Your task to perform on an android device: Go to Maps Image 0: 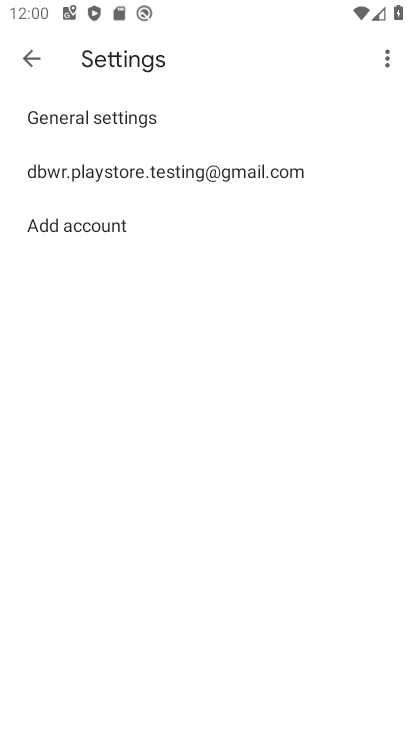
Step 0: press home button
Your task to perform on an android device: Go to Maps Image 1: 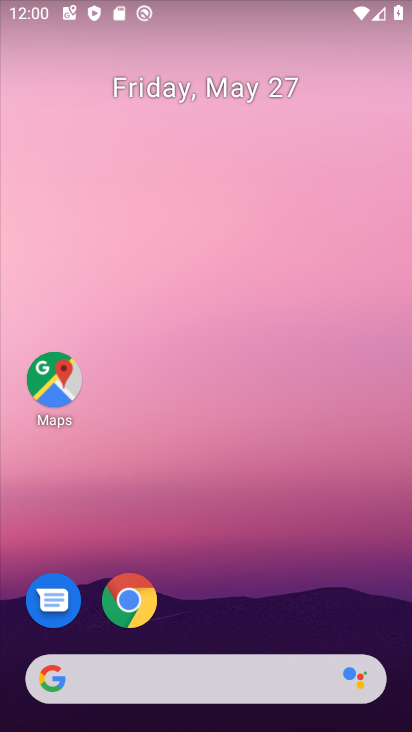
Step 1: click (66, 394)
Your task to perform on an android device: Go to Maps Image 2: 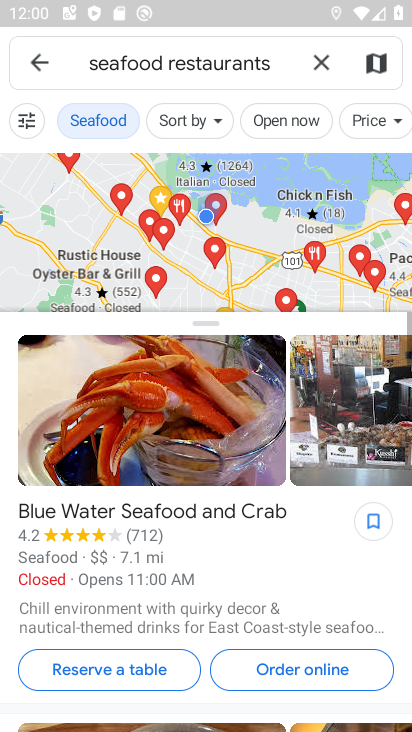
Step 2: task complete